Your task to perform on an android device: Open Amazon Image 0: 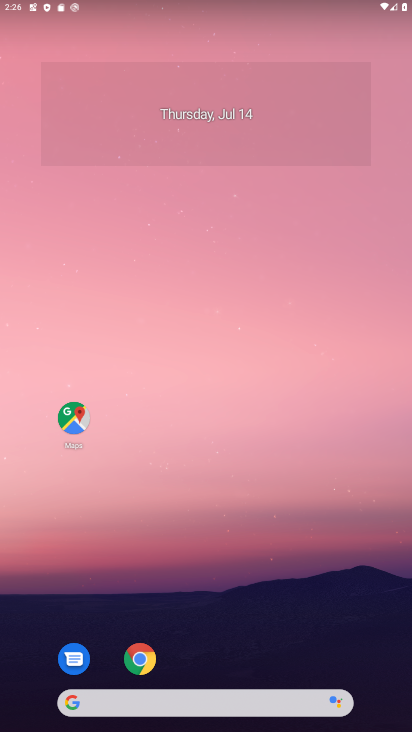
Step 0: click (69, 713)
Your task to perform on an android device: Open Amazon Image 1: 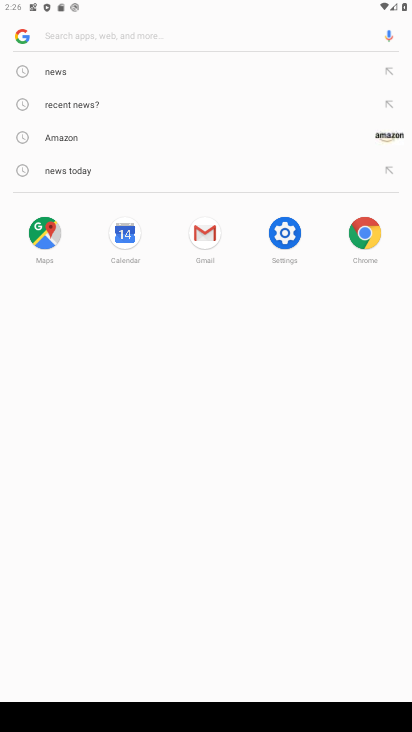
Step 1: click (57, 140)
Your task to perform on an android device: Open Amazon Image 2: 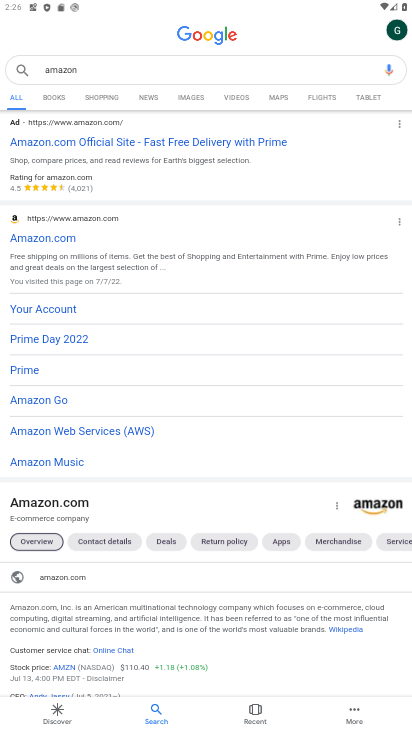
Step 2: click (92, 145)
Your task to perform on an android device: Open Amazon Image 3: 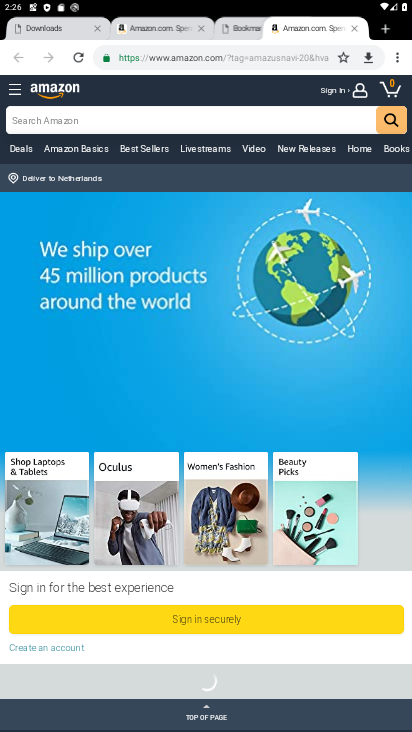
Step 3: task complete